Your task to perform on an android device: Open wifi settings Image 0: 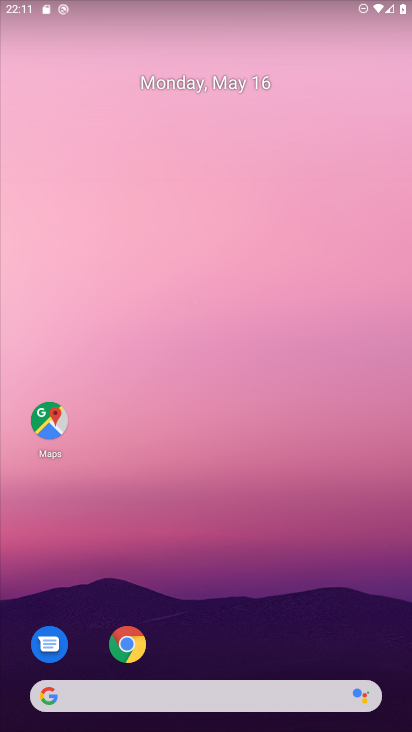
Step 0: drag from (212, 5) to (158, 417)
Your task to perform on an android device: Open wifi settings Image 1: 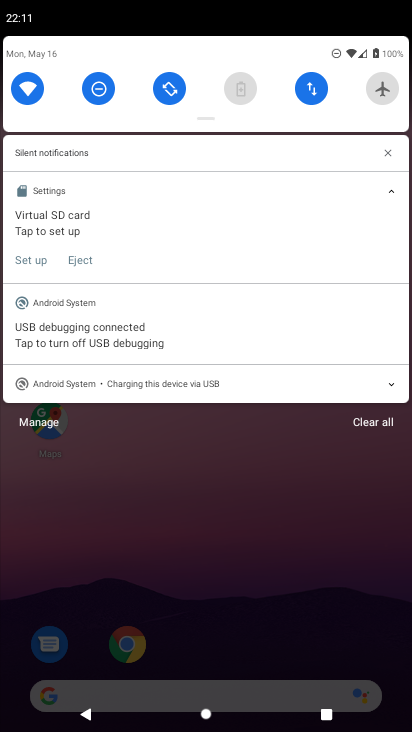
Step 1: click (32, 98)
Your task to perform on an android device: Open wifi settings Image 2: 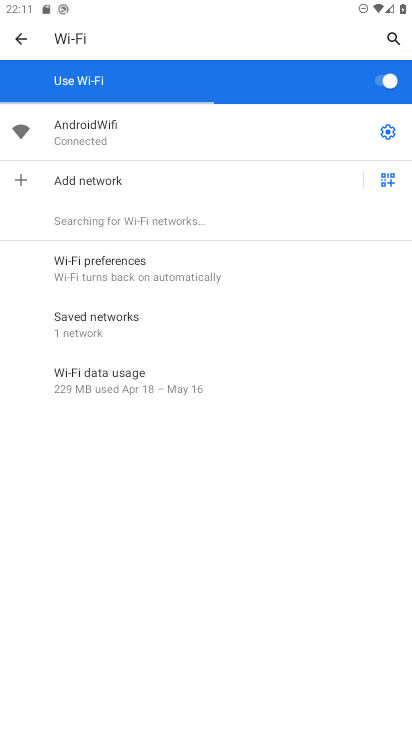
Step 2: click (382, 137)
Your task to perform on an android device: Open wifi settings Image 3: 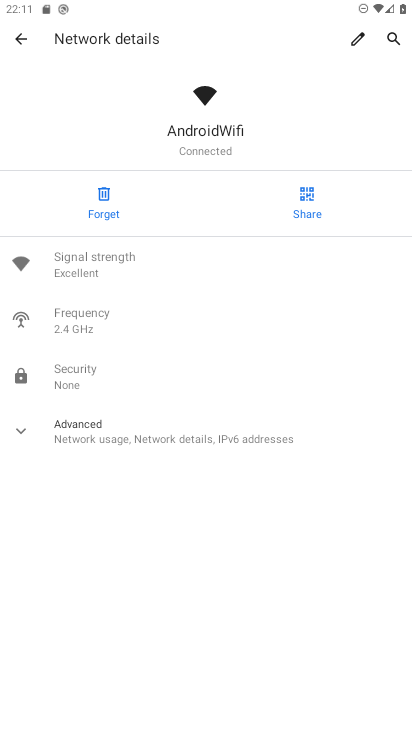
Step 3: task complete